Your task to perform on an android device: Show me the best rated power washer on Home Depot. Image 0: 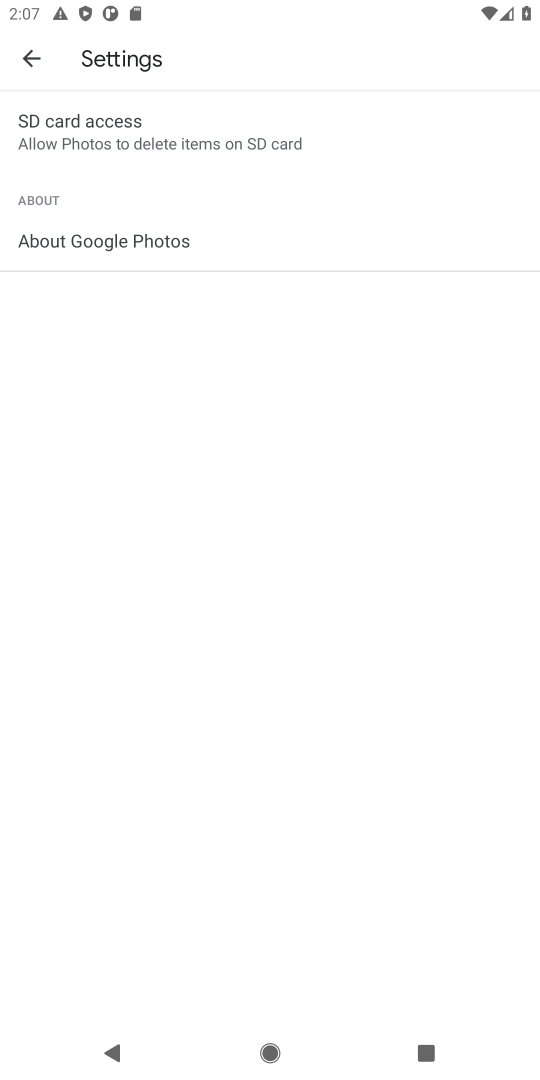
Step 0: press home button
Your task to perform on an android device: Show me the best rated power washer on Home Depot. Image 1: 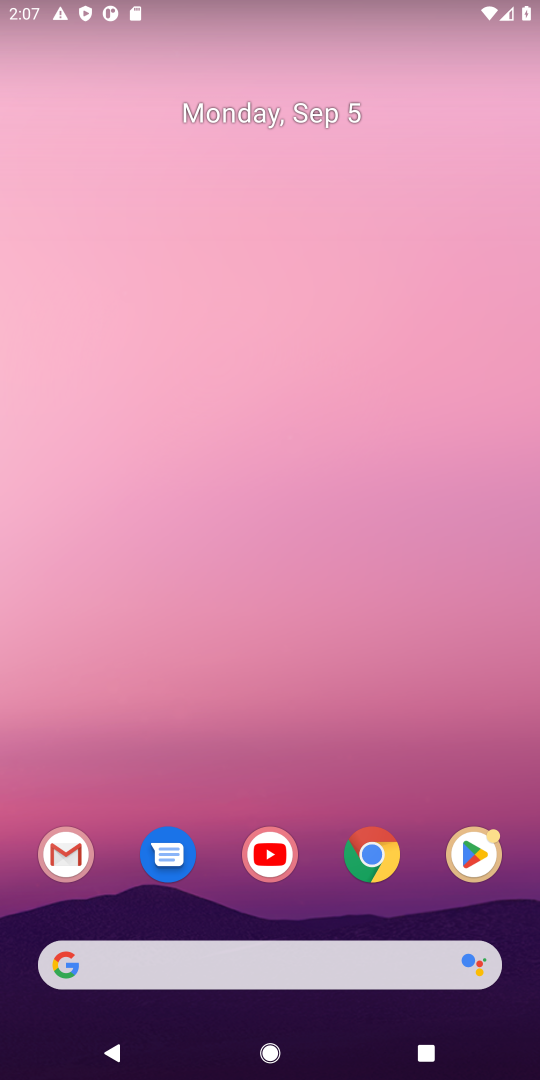
Step 1: click (360, 960)
Your task to perform on an android device: Show me the best rated power washer on Home Depot. Image 2: 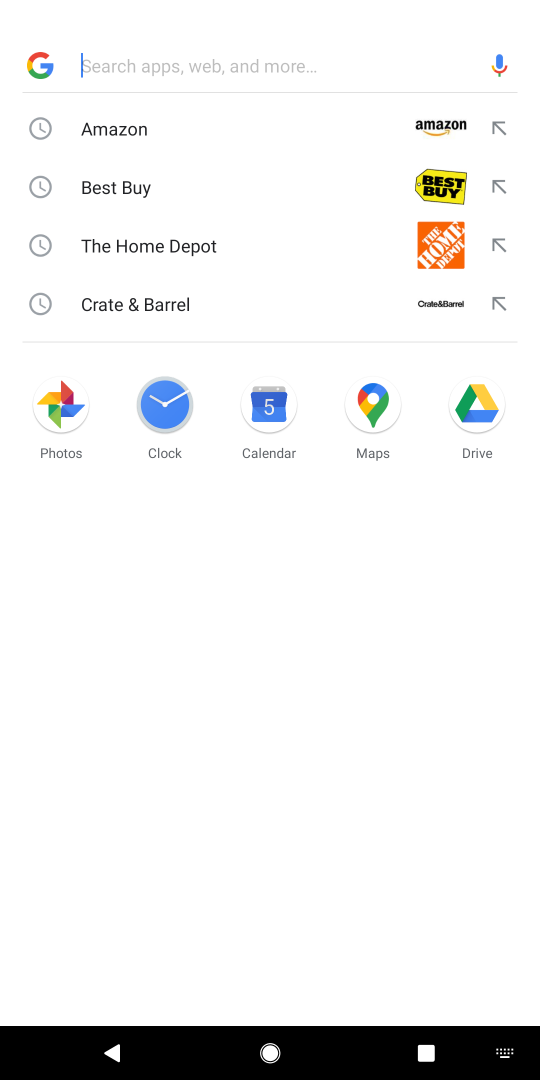
Step 2: type "home depot"
Your task to perform on an android device: Show me the best rated power washer on Home Depot. Image 3: 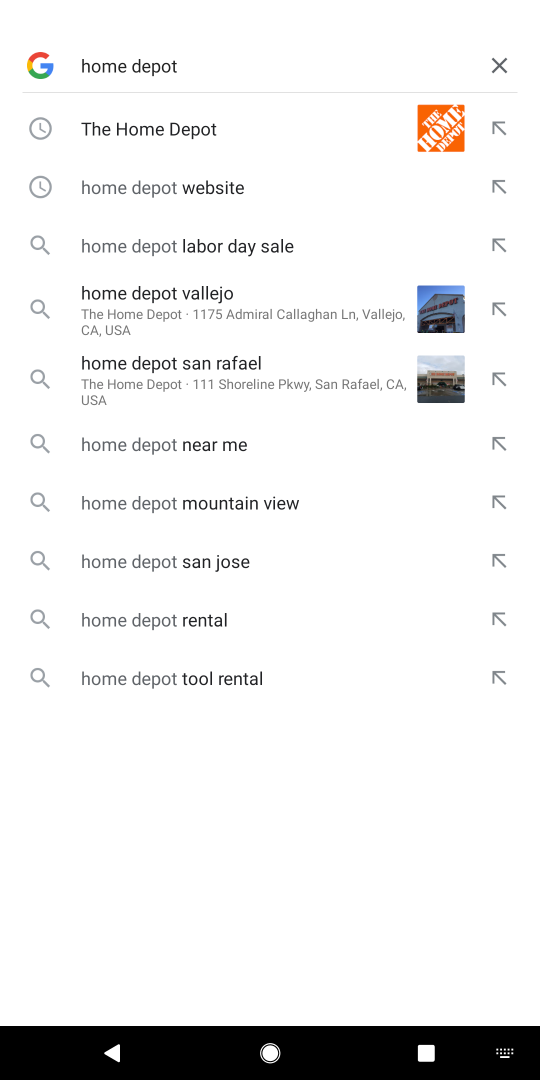
Step 3: press enter
Your task to perform on an android device: Show me the best rated power washer on Home Depot. Image 4: 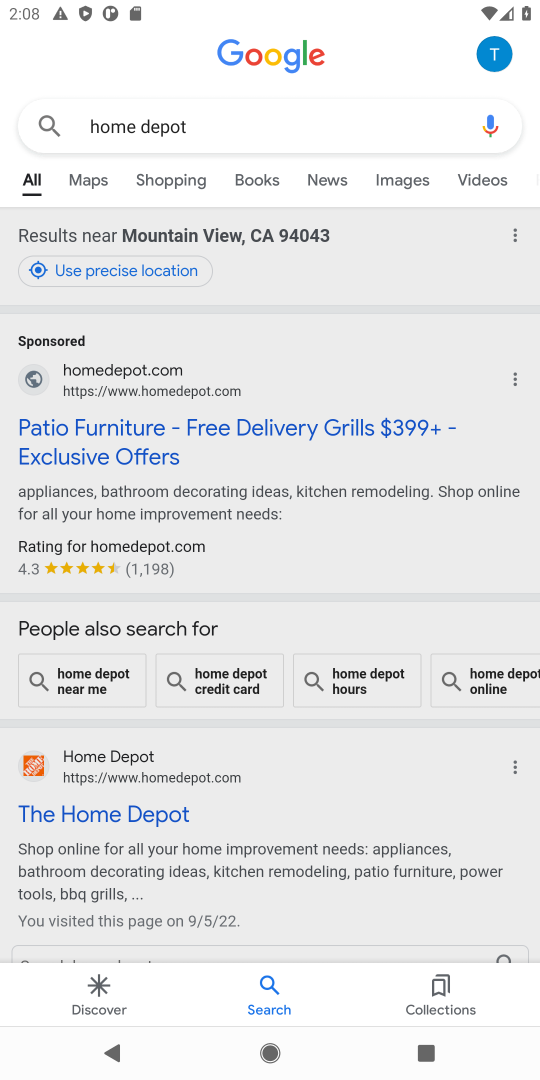
Step 4: click (117, 812)
Your task to perform on an android device: Show me the best rated power washer on Home Depot. Image 5: 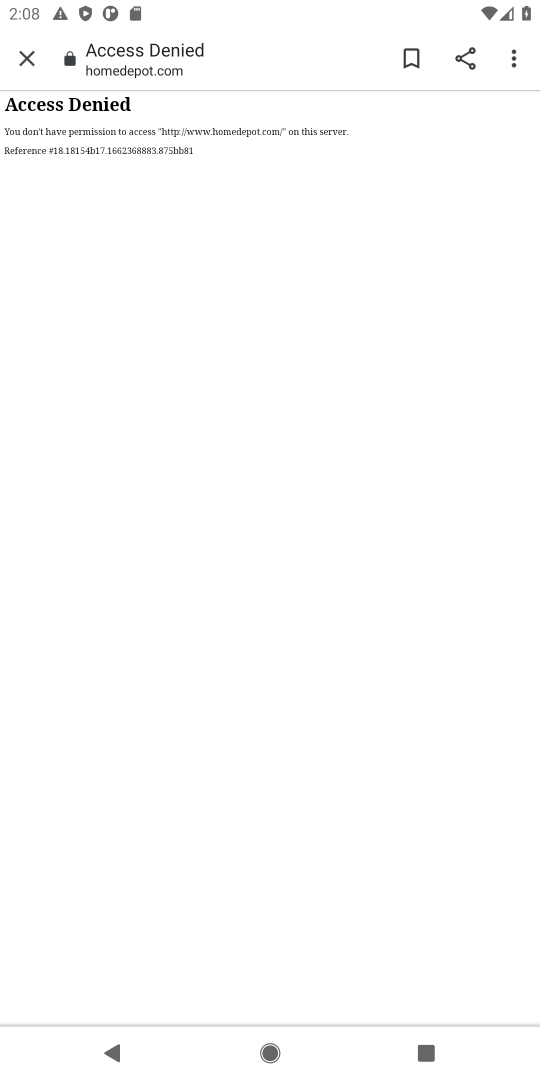
Step 5: task complete